Your task to perform on an android device: Do I have any events tomorrow? Image 0: 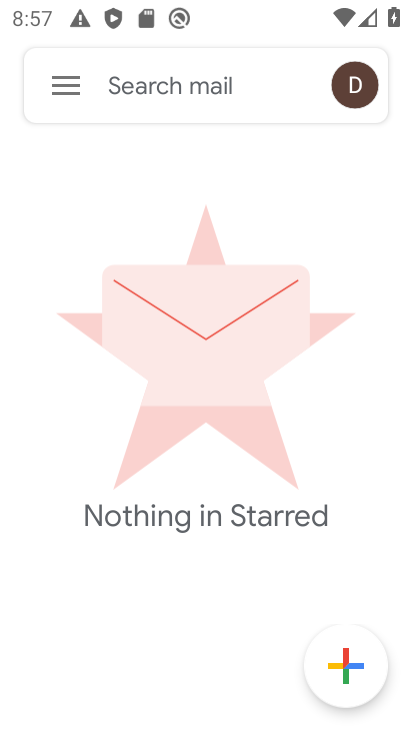
Step 0: press home button
Your task to perform on an android device: Do I have any events tomorrow? Image 1: 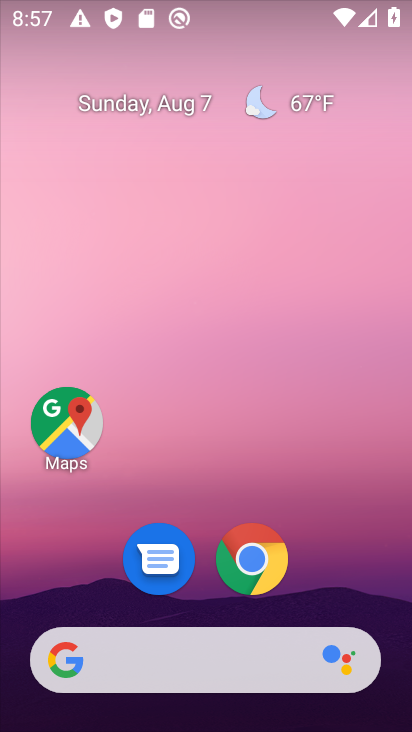
Step 1: drag from (380, 608) to (355, 323)
Your task to perform on an android device: Do I have any events tomorrow? Image 2: 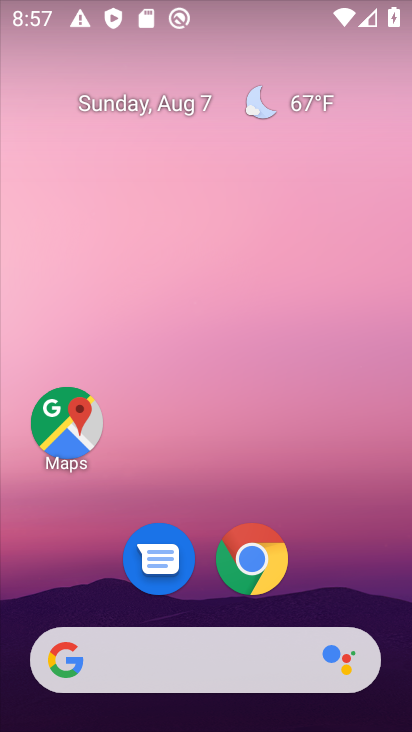
Step 2: drag from (370, 547) to (298, 197)
Your task to perform on an android device: Do I have any events tomorrow? Image 3: 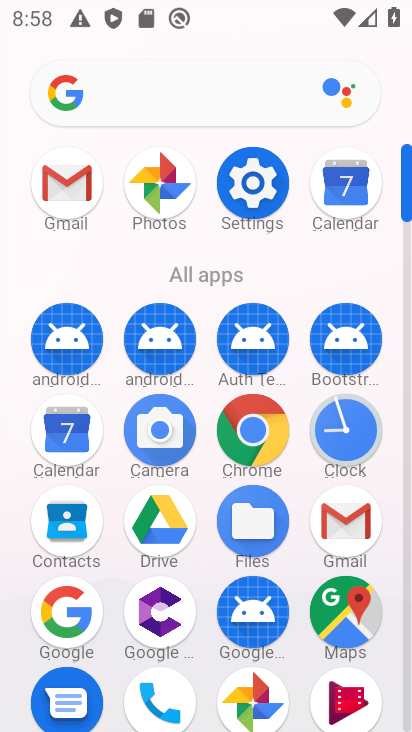
Step 3: click (74, 432)
Your task to perform on an android device: Do I have any events tomorrow? Image 4: 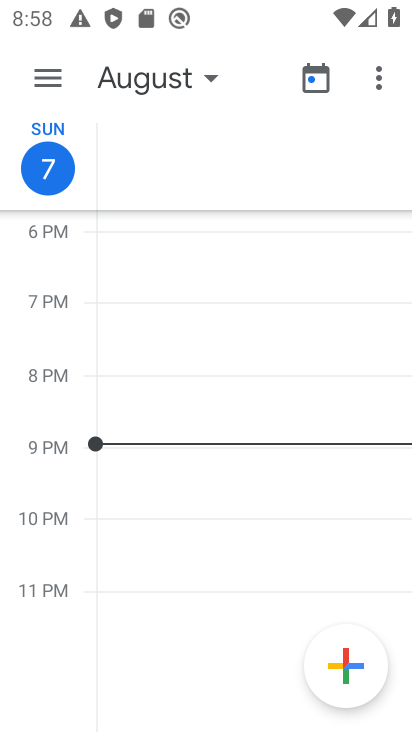
Step 4: click (41, 90)
Your task to perform on an android device: Do I have any events tomorrow? Image 5: 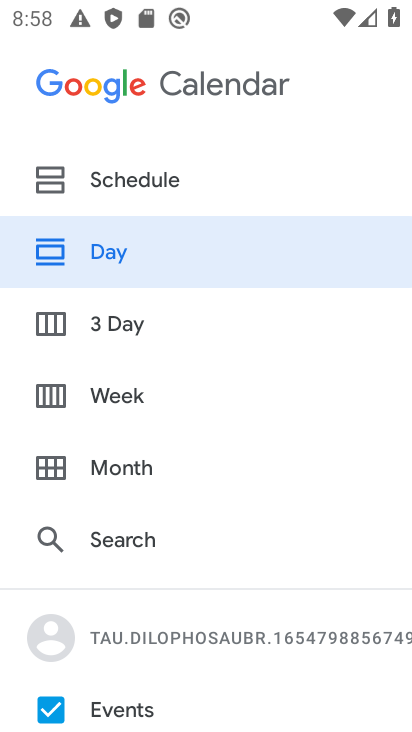
Step 5: click (304, 251)
Your task to perform on an android device: Do I have any events tomorrow? Image 6: 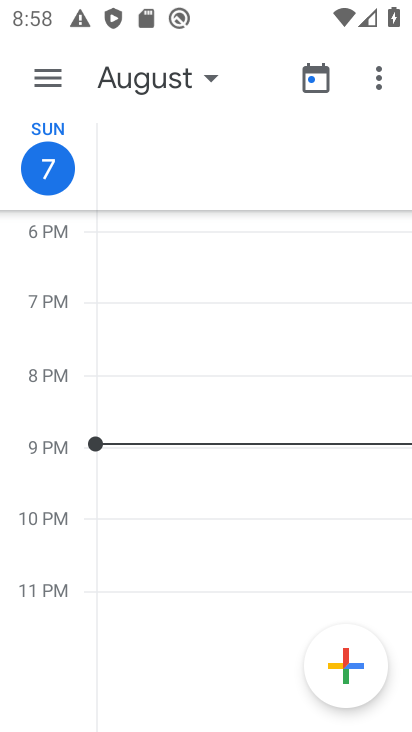
Step 6: click (185, 74)
Your task to perform on an android device: Do I have any events tomorrow? Image 7: 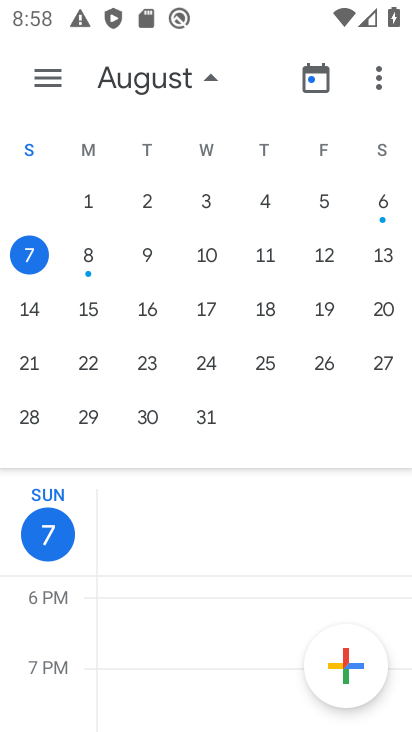
Step 7: click (90, 269)
Your task to perform on an android device: Do I have any events tomorrow? Image 8: 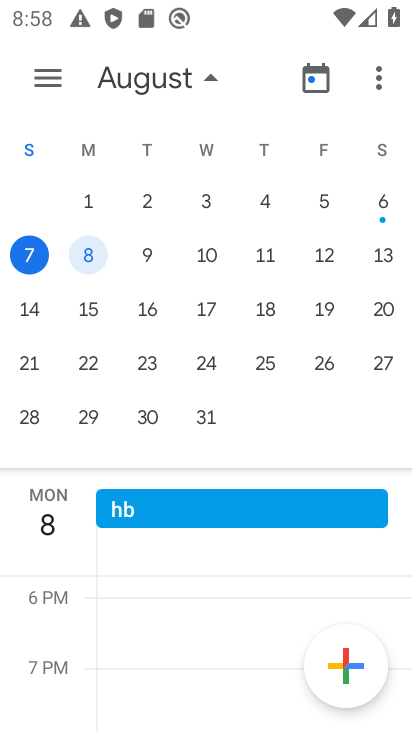
Step 8: task complete